Your task to perform on an android device: allow cookies in the chrome app Image 0: 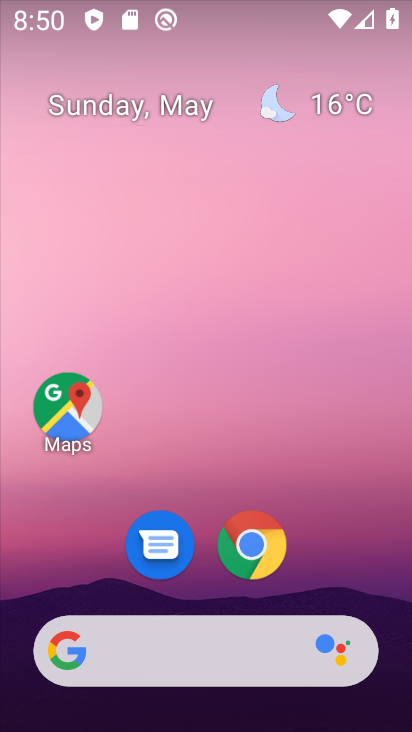
Step 0: drag from (267, 4) to (262, 370)
Your task to perform on an android device: allow cookies in the chrome app Image 1: 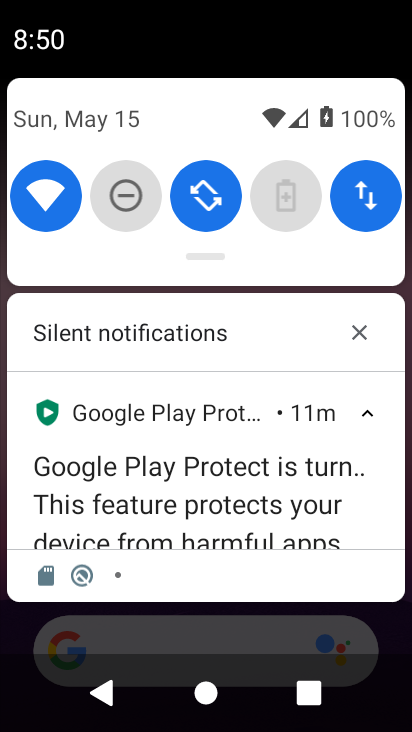
Step 1: click (388, 616)
Your task to perform on an android device: allow cookies in the chrome app Image 2: 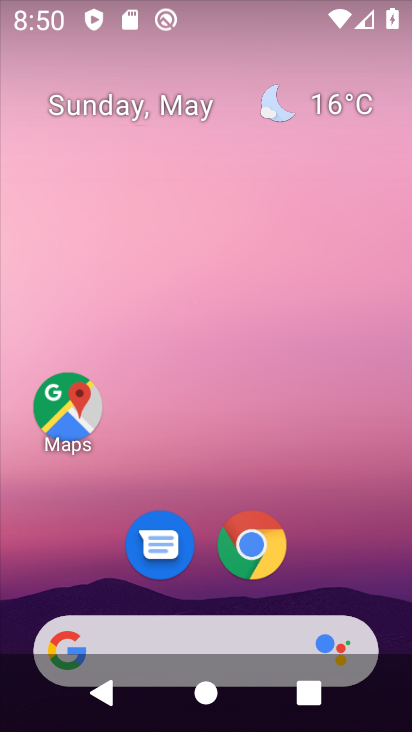
Step 2: click (244, 544)
Your task to perform on an android device: allow cookies in the chrome app Image 3: 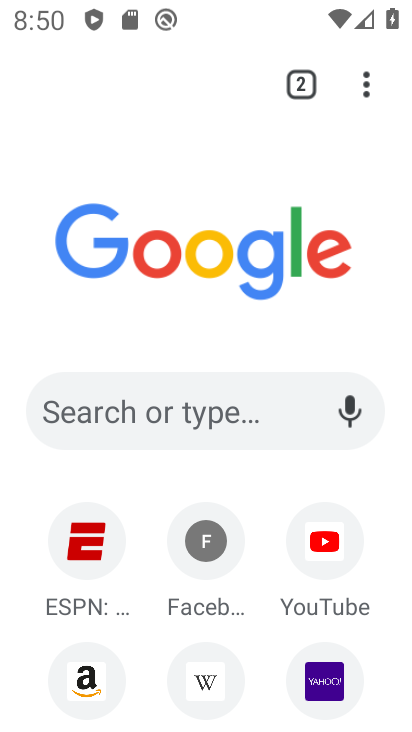
Step 3: drag from (363, 78) to (123, 591)
Your task to perform on an android device: allow cookies in the chrome app Image 4: 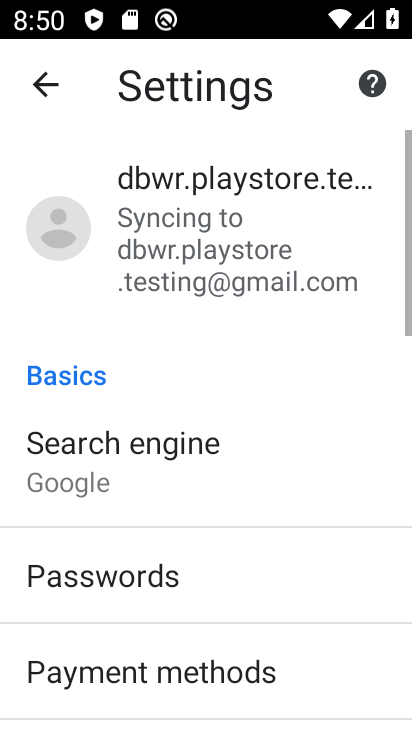
Step 4: drag from (261, 610) to (272, 165)
Your task to perform on an android device: allow cookies in the chrome app Image 5: 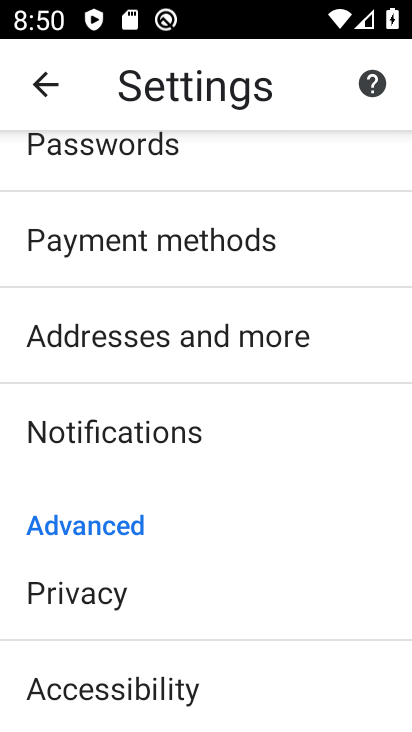
Step 5: drag from (261, 619) to (275, 337)
Your task to perform on an android device: allow cookies in the chrome app Image 6: 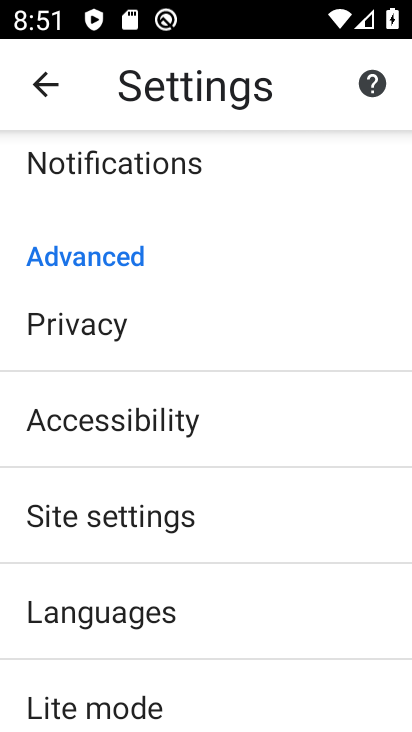
Step 6: click (133, 525)
Your task to perform on an android device: allow cookies in the chrome app Image 7: 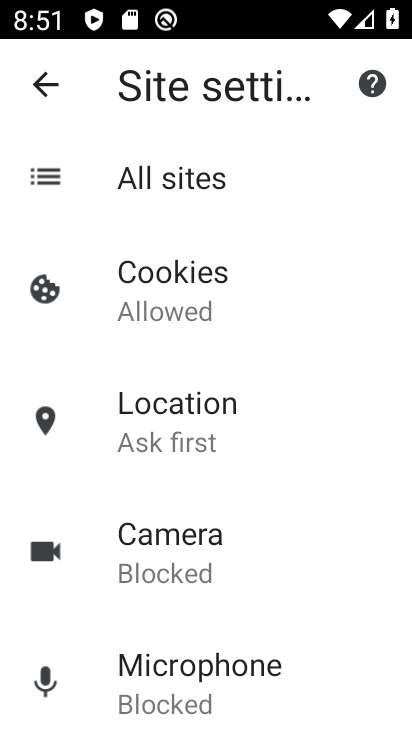
Step 7: click (166, 294)
Your task to perform on an android device: allow cookies in the chrome app Image 8: 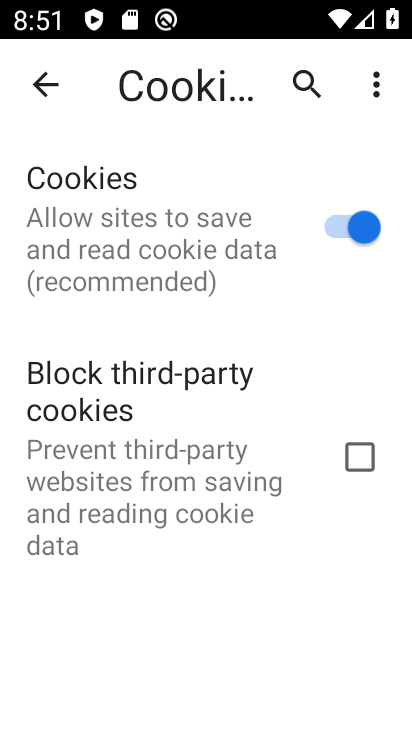
Step 8: task complete